Your task to perform on an android device: Open calendar and show me the second week of next month Image 0: 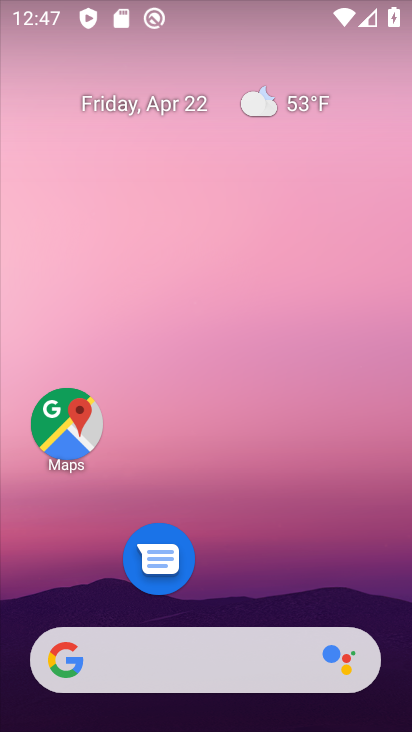
Step 0: drag from (224, 591) to (224, 54)
Your task to perform on an android device: Open calendar and show me the second week of next month Image 1: 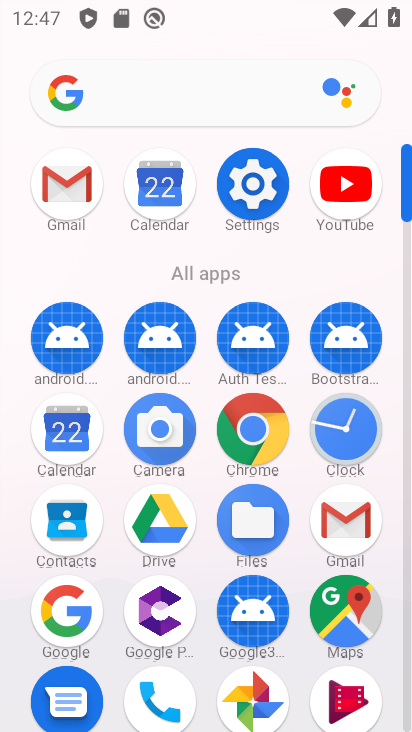
Step 1: click (63, 434)
Your task to perform on an android device: Open calendar and show me the second week of next month Image 2: 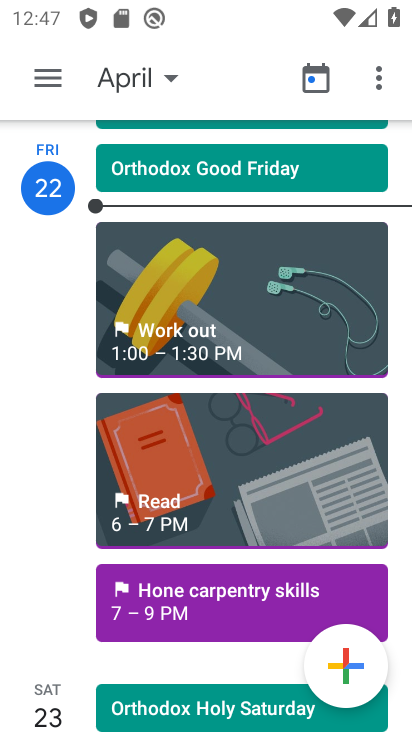
Step 2: click (131, 77)
Your task to perform on an android device: Open calendar and show me the second week of next month Image 3: 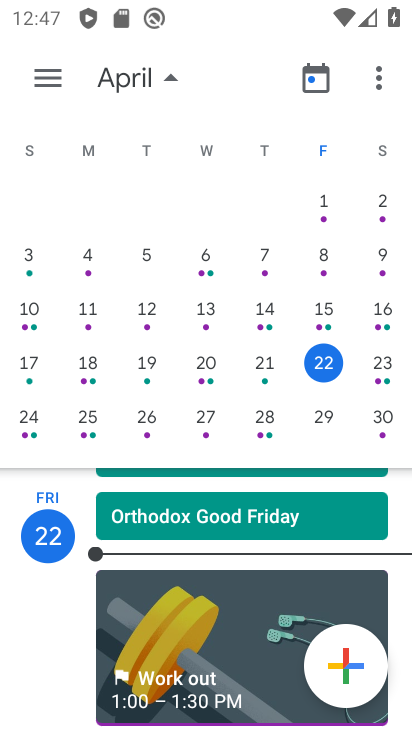
Step 3: drag from (371, 330) to (14, 314)
Your task to perform on an android device: Open calendar and show me the second week of next month Image 4: 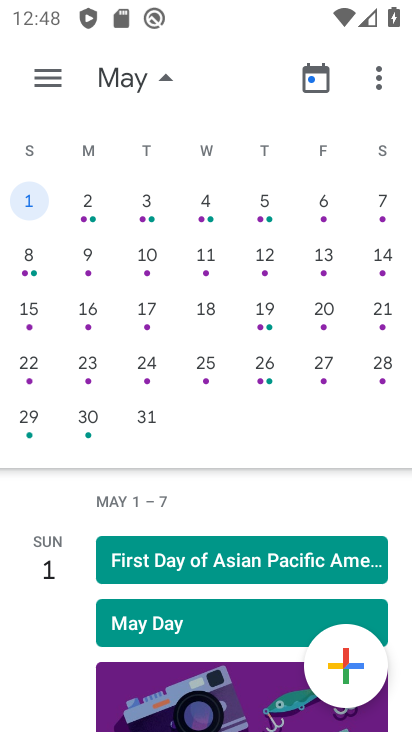
Step 4: click (85, 254)
Your task to perform on an android device: Open calendar and show me the second week of next month Image 5: 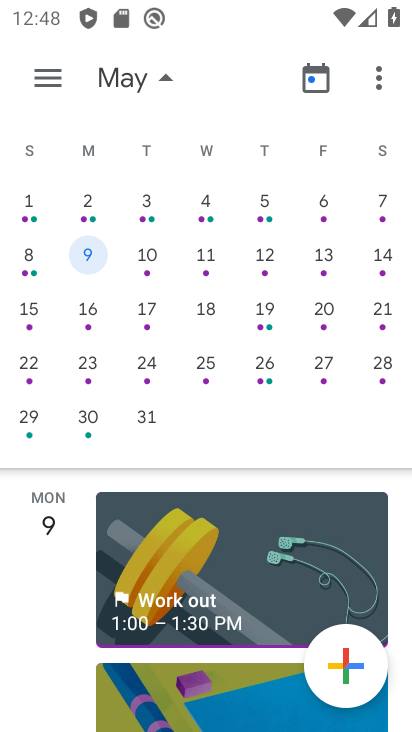
Step 5: task complete